Your task to perform on an android device: turn on data saver in the chrome app Image 0: 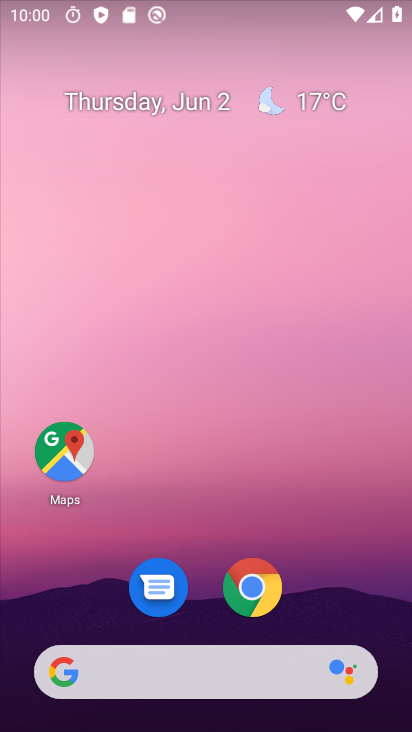
Step 0: click (256, 582)
Your task to perform on an android device: turn on data saver in the chrome app Image 1: 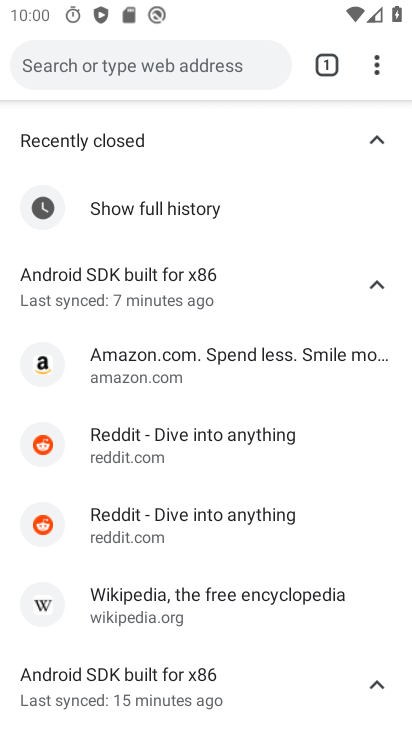
Step 1: click (382, 59)
Your task to perform on an android device: turn on data saver in the chrome app Image 2: 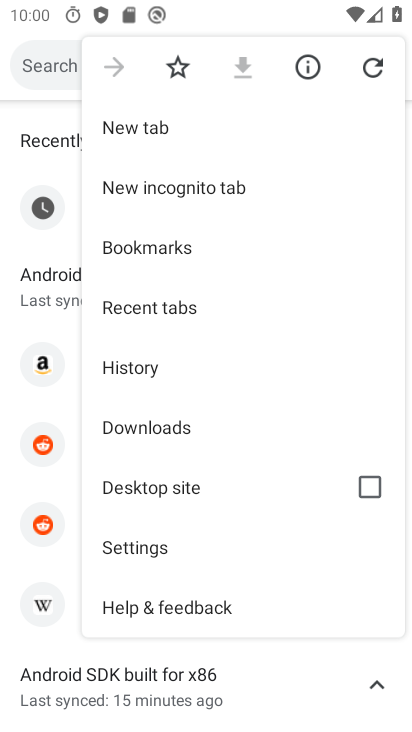
Step 2: click (166, 540)
Your task to perform on an android device: turn on data saver in the chrome app Image 3: 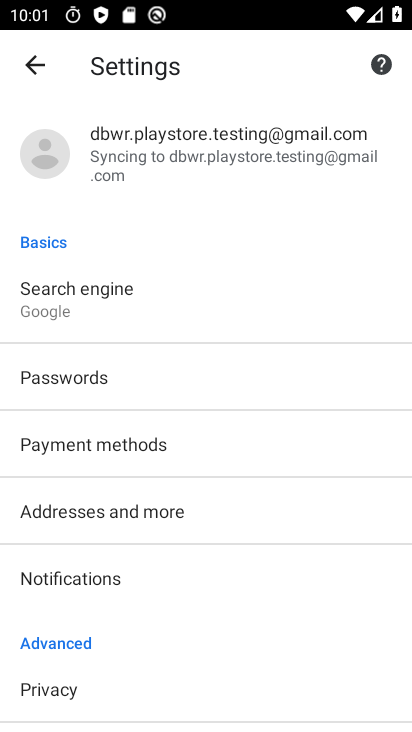
Step 3: drag from (197, 681) to (248, 147)
Your task to perform on an android device: turn on data saver in the chrome app Image 4: 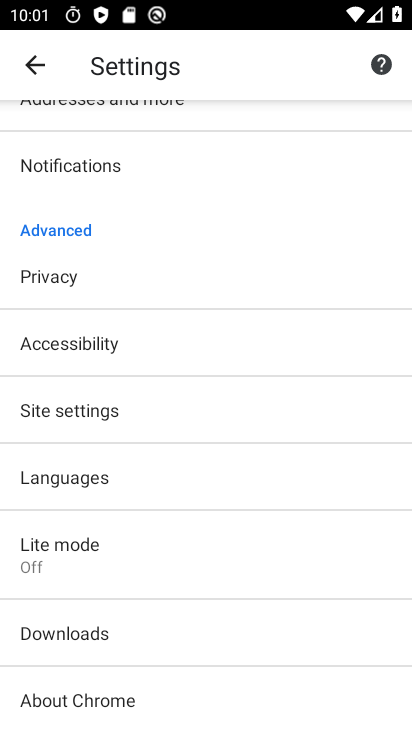
Step 4: click (113, 563)
Your task to perform on an android device: turn on data saver in the chrome app Image 5: 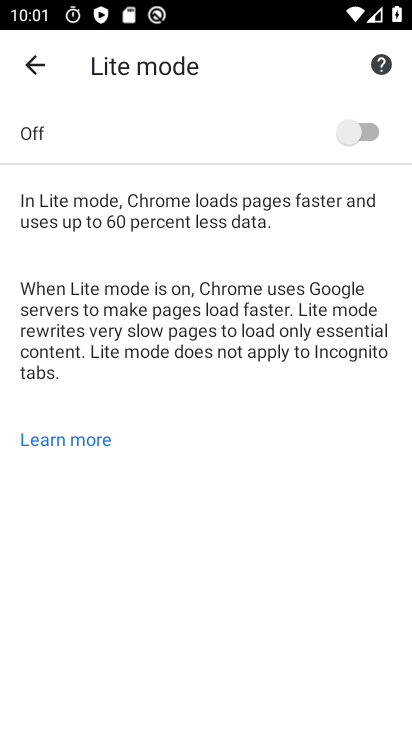
Step 5: click (363, 124)
Your task to perform on an android device: turn on data saver in the chrome app Image 6: 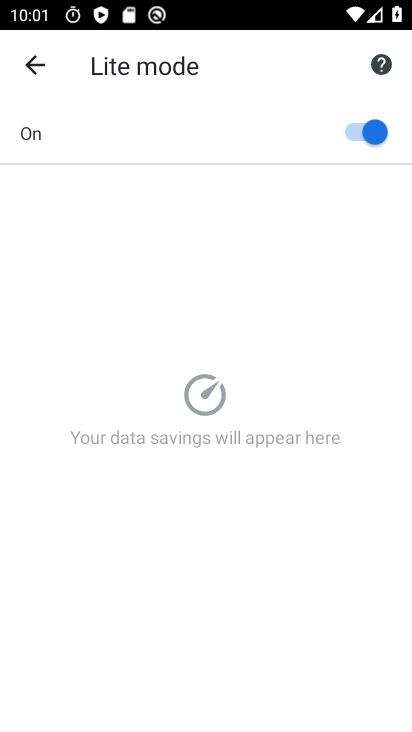
Step 6: task complete